Your task to perform on an android device: toggle notifications settings in the gmail app Image 0: 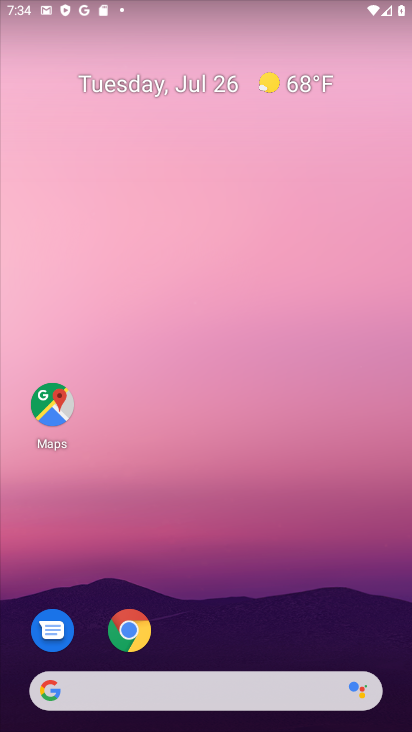
Step 0: press home button
Your task to perform on an android device: toggle notifications settings in the gmail app Image 1: 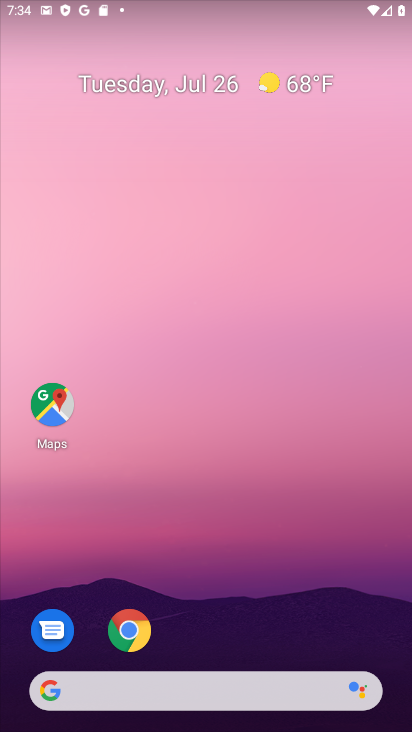
Step 1: click (379, 116)
Your task to perform on an android device: toggle notifications settings in the gmail app Image 2: 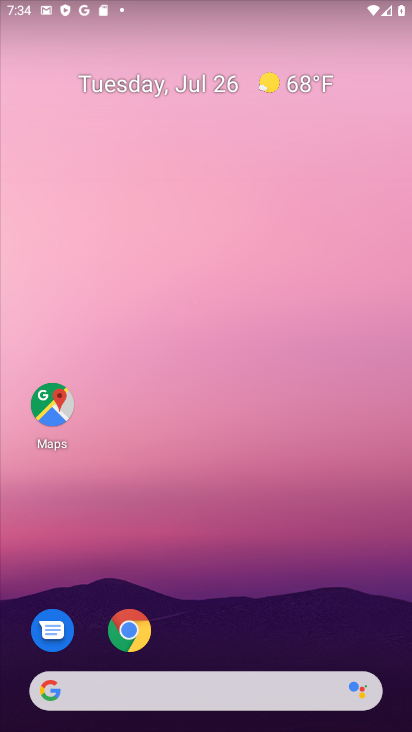
Step 2: drag from (340, 623) to (324, 86)
Your task to perform on an android device: toggle notifications settings in the gmail app Image 3: 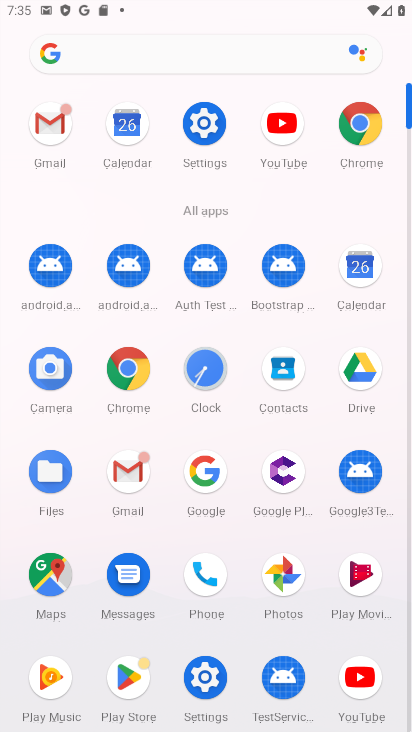
Step 3: click (49, 123)
Your task to perform on an android device: toggle notifications settings in the gmail app Image 4: 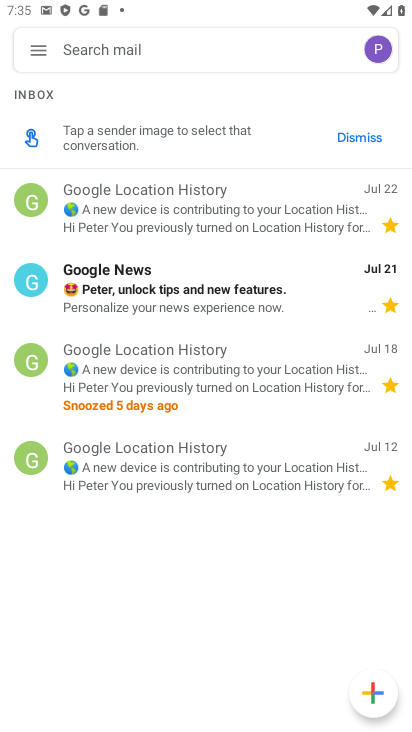
Step 4: click (40, 48)
Your task to perform on an android device: toggle notifications settings in the gmail app Image 5: 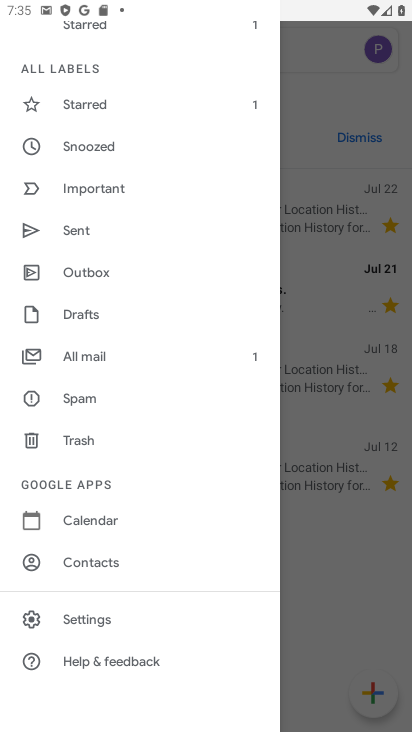
Step 5: click (99, 620)
Your task to perform on an android device: toggle notifications settings in the gmail app Image 6: 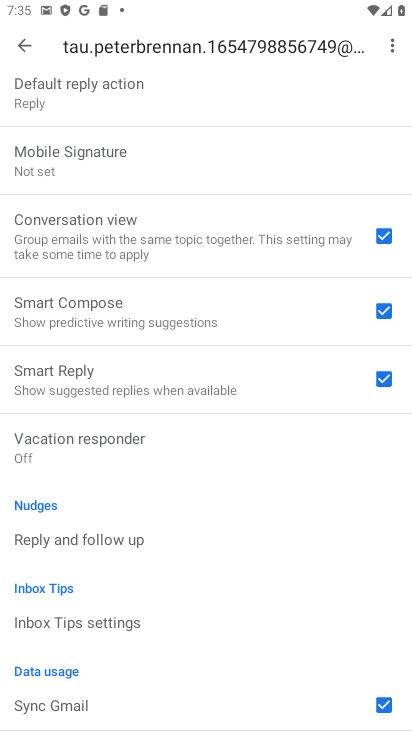
Step 6: drag from (249, 526) to (262, 460)
Your task to perform on an android device: toggle notifications settings in the gmail app Image 7: 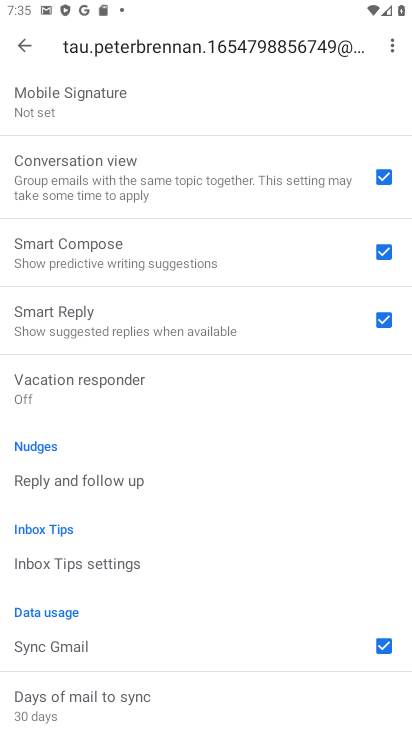
Step 7: drag from (273, 588) to (285, 469)
Your task to perform on an android device: toggle notifications settings in the gmail app Image 8: 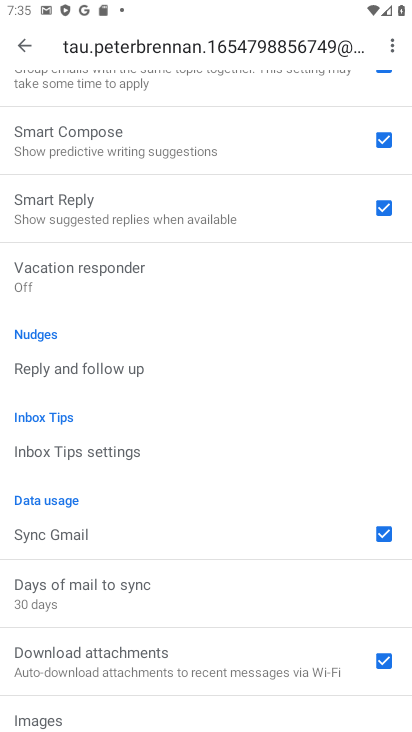
Step 8: drag from (264, 596) to (265, 491)
Your task to perform on an android device: toggle notifications settings in the gmail app Image 9: 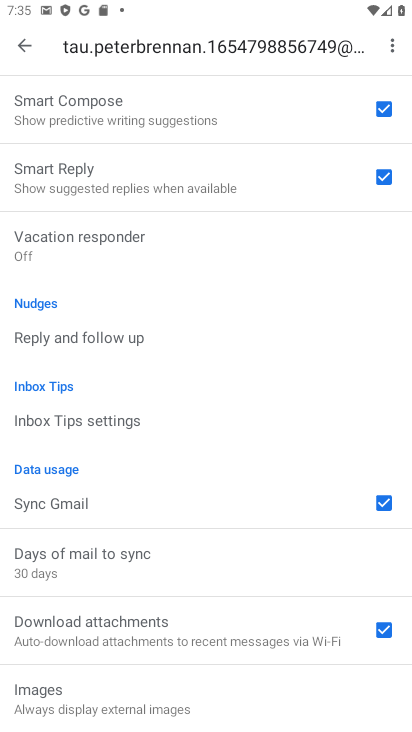
Step 9: drag from (272, 320) to (271, 412)
Your task to perform on an android device: toggle notifications settings in the gmail app Image 10: 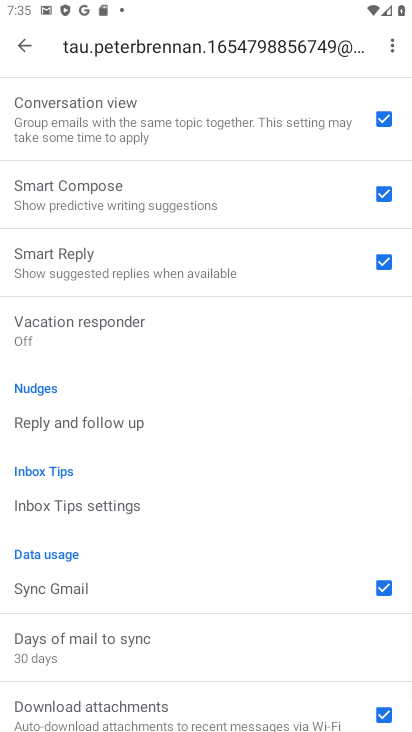
Step 10: drag from (287, 268) to (280, 385)
Your task to perform on an android device: toggle notifications settings in the gmail app Image 11: 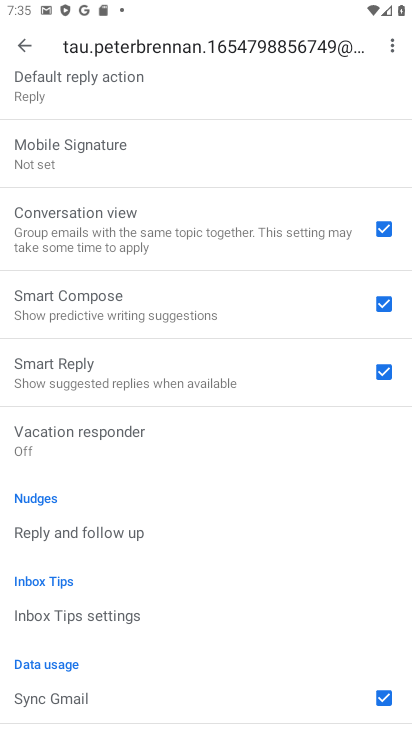
Step 11: drag from (279, 249) to (279, 377)
Your task to perform on an android device: toggle notifications settings in the gmail app Image 12: 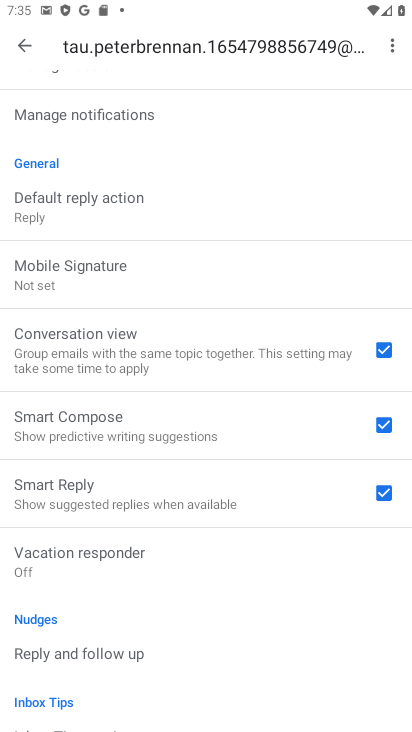
Step 12: drag from (297, 251) to (292, 354)
Your task to perform on an android device: toggle notifications settings in the gmail app Image 13: 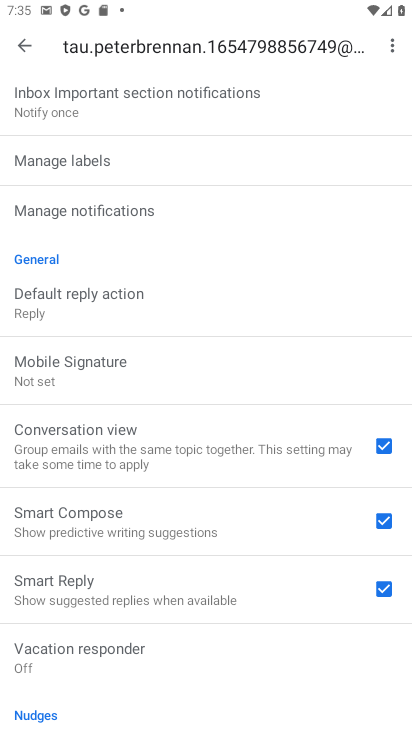
Step 13: drag from (282, 234) to (275, 284)
Your task to perform on an android device: toggle notifications settings in the gmail app Image 14: 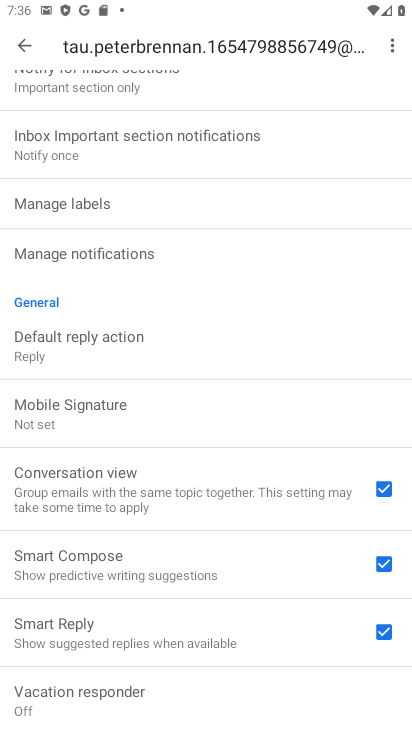
Step 14: click (208, 275)
Your task to perform on an android device: toggle notifications settings in the gmail app Image 15: 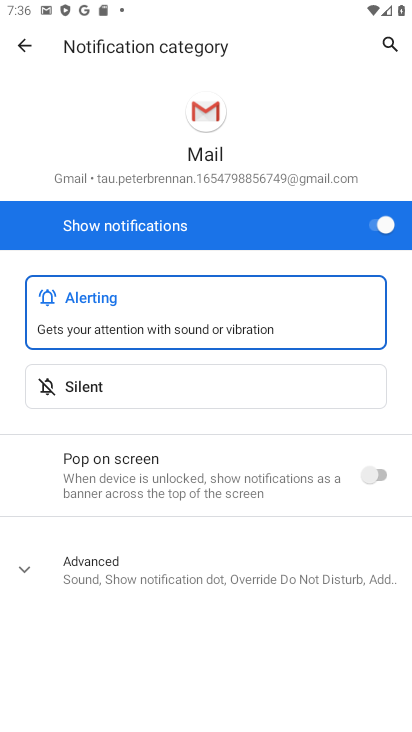
Step 15: click (389, 225)
Your task to perform on an android device: toggle notifications settings in the gmail app Image 16: 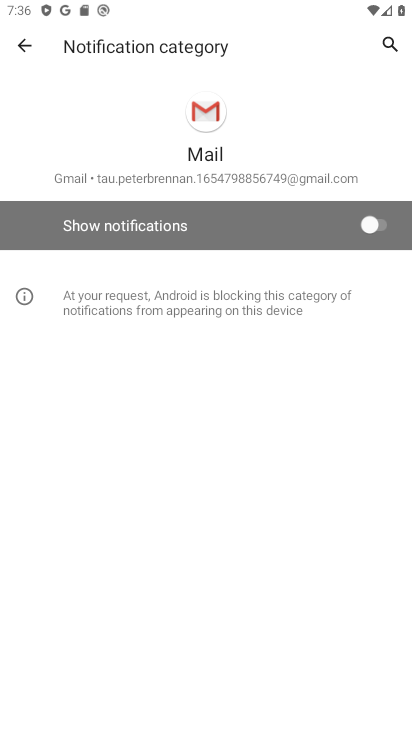
Step 16: task complete